Your task to perform on an android device: remove spam from my inbox in the gmail app Image 0: 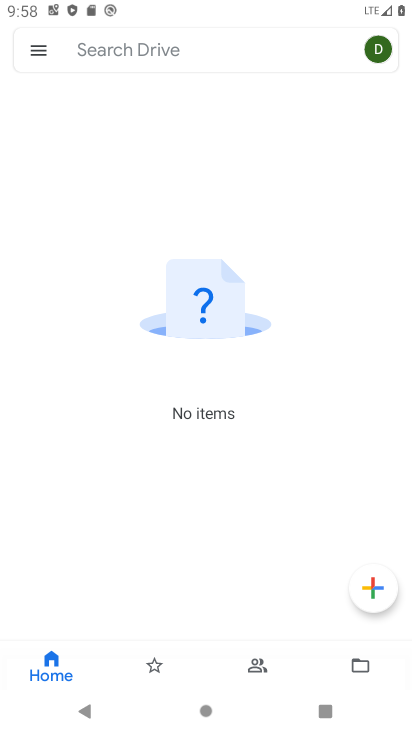
Step 0: press home button
Your task to perform on an android device: remove spam from my inbox in the gmail app Image 1: 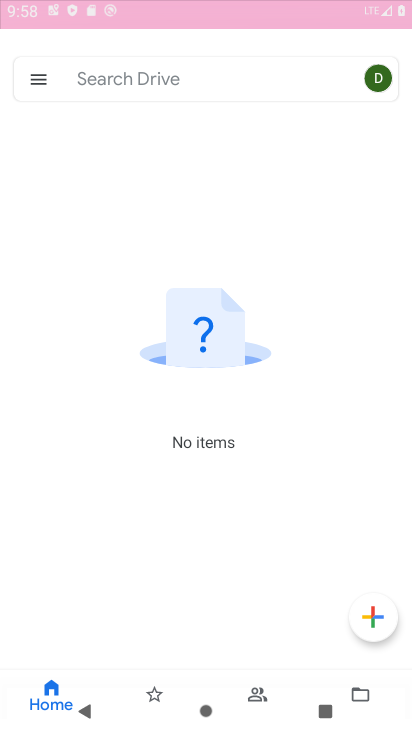
Step 1: drag from (375, 645) to (238, 48)
Your task to perform on an android device: remove spam from my inbox in the gmail app Image 2: 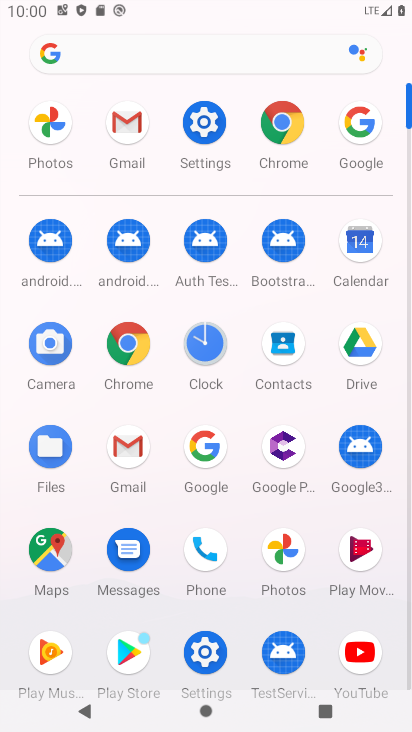
Step 2: click (128, 442)
Your task to perform on an android device: remove spam from my inbox in the gmail app Image 3: 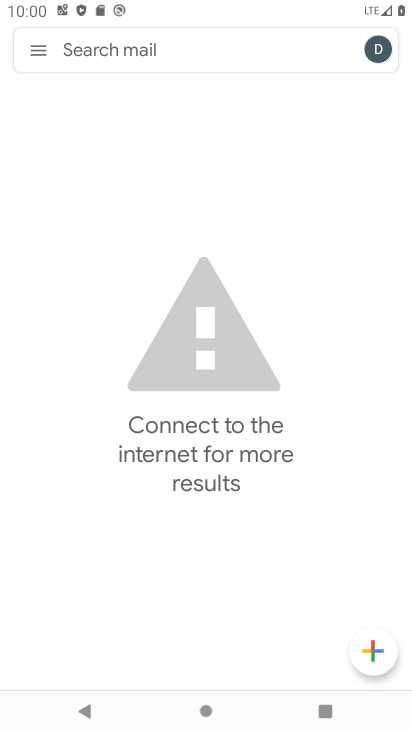
Step 3: click (27, 49)
Your task to perform on an android device: remove spam from my inbox in the gmail app Image 4: 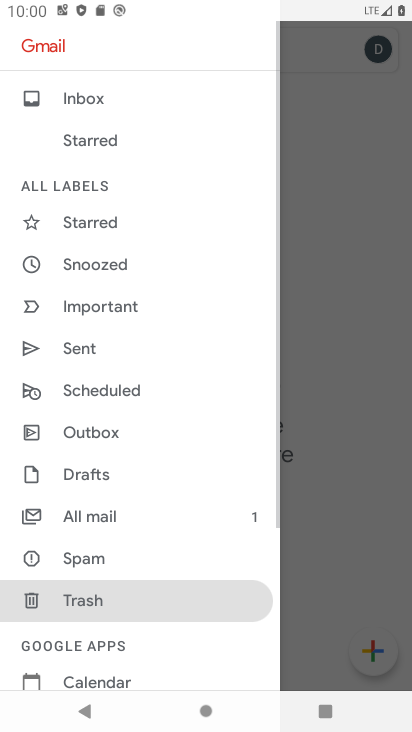
Step 4: click (101, 561)
Your task to perform on an android device: remove spam from my inbox in the gmail app Image 5: 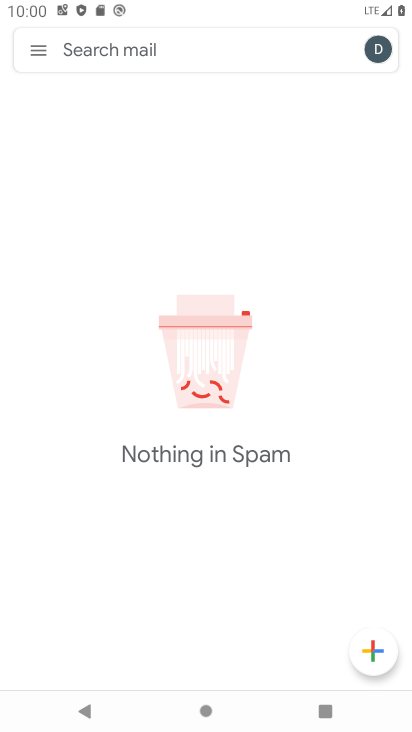
Step 5: task complete